Your task to perform on an android device: Open CNN.com Image 0: 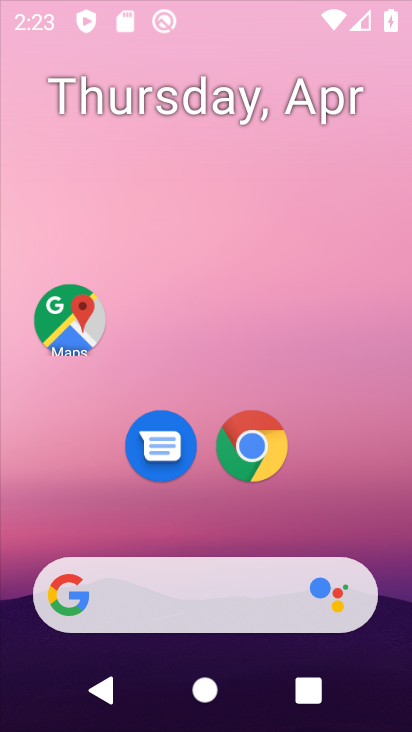
Step 0: click (294, 114)
Your task to perform on an android device: Open CNN.com Image 1: 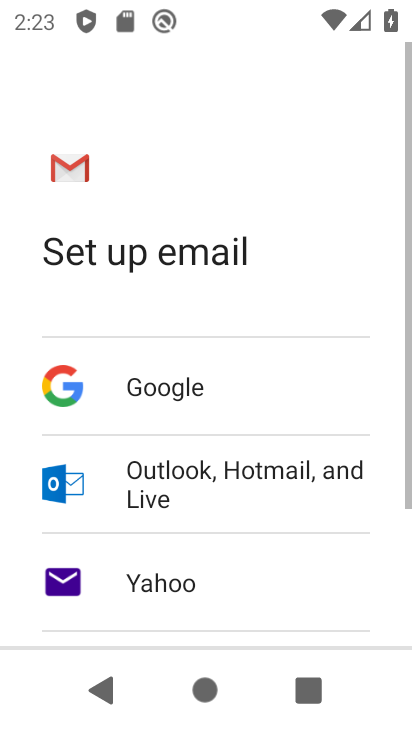
Step 1: press back button
Your task to perform on an android device: Open CNN.com Image 2: 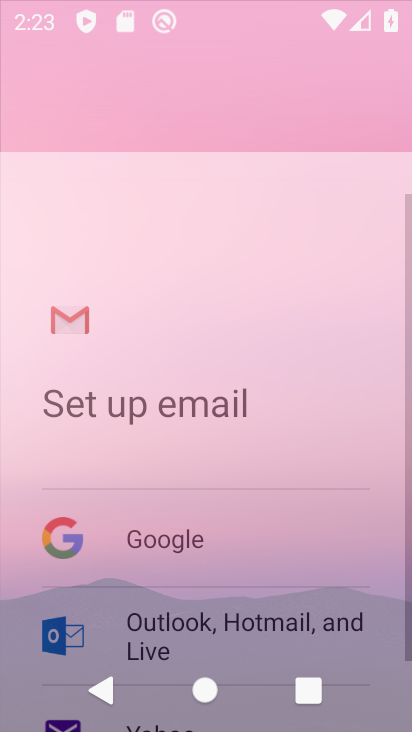
Step 2: press home button
Your task to perform on an android device: Open CNN.com Image 3: 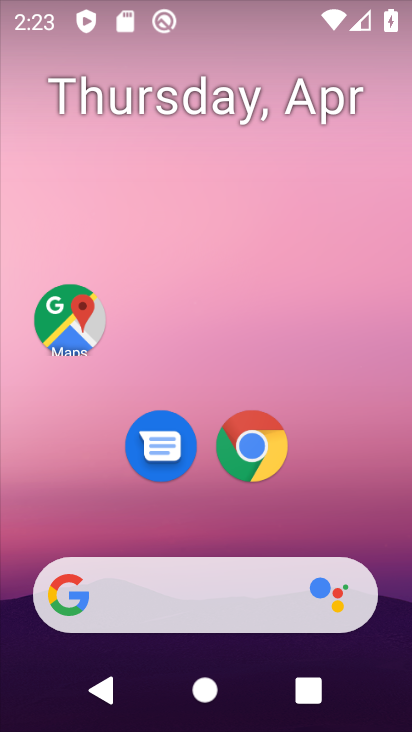
Step 3: drag from (271, 622) to (285, 103)
Your task to perform on an android device: Open CNN.com Image 4: 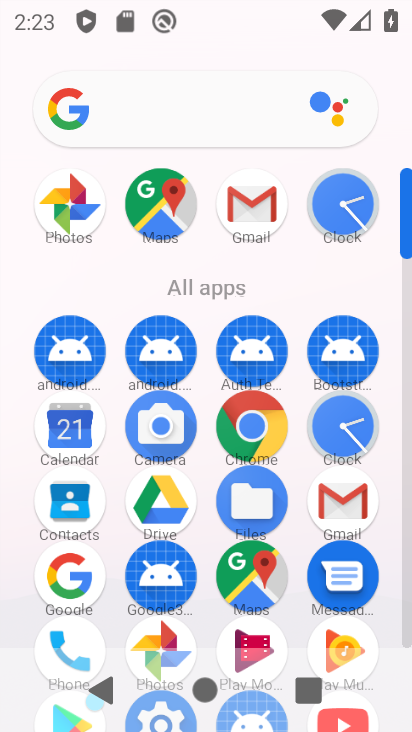
Step 4: click (261, 440)
Your task to perform on an android device: Open CNN.com Image 5: 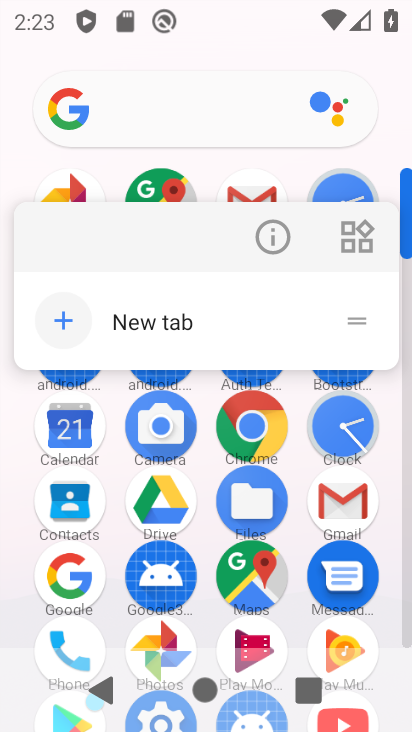
Step 5: click (261, 440)
Your task to perform on an android device: Open CNN.com Image 6: 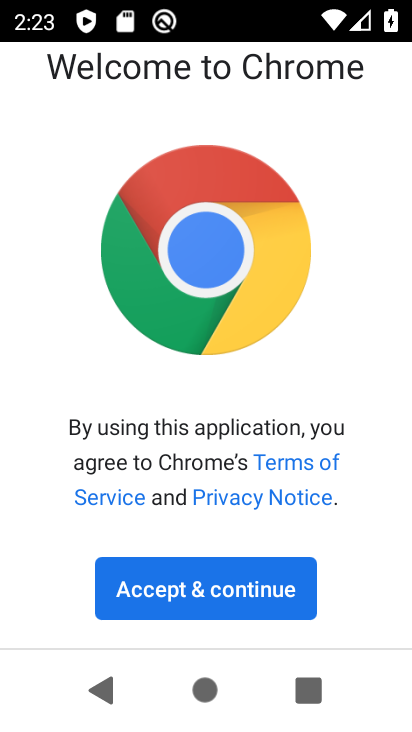
Step 6: click (206, 610)
Your task to perform on an android device: Open CNN.com Image 7: 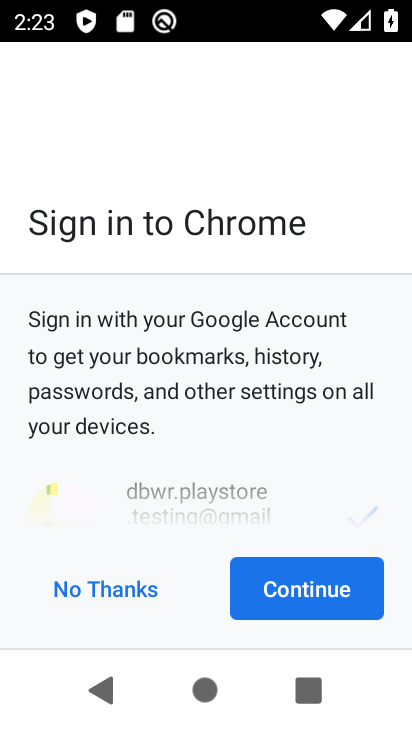
Step 7: click (294, 574)
Your task to perform on an android device: Open CNN.com Image 8: 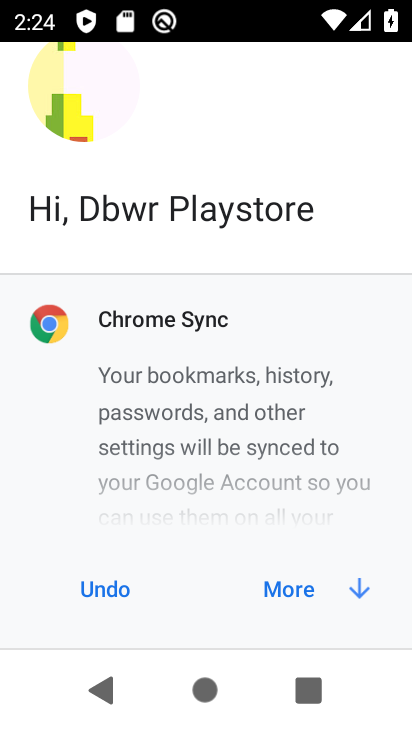
Step 8: click (348, 589)
Your task to perform on an android device: Open CNN.com Image 9: 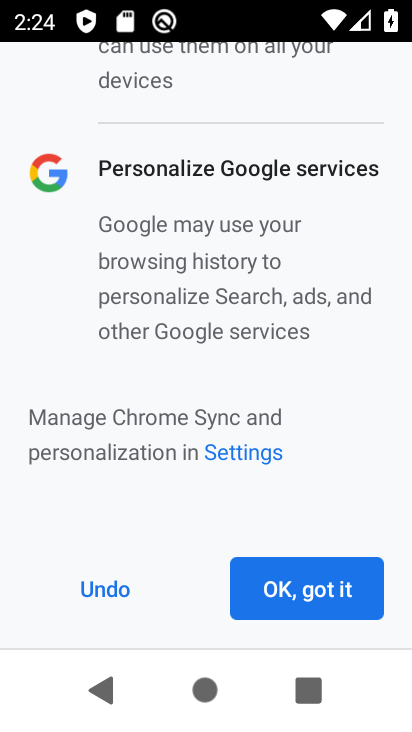
Step 9: click (314, 589)
Your task to perform on an android device: Open CNN.com Image 10: 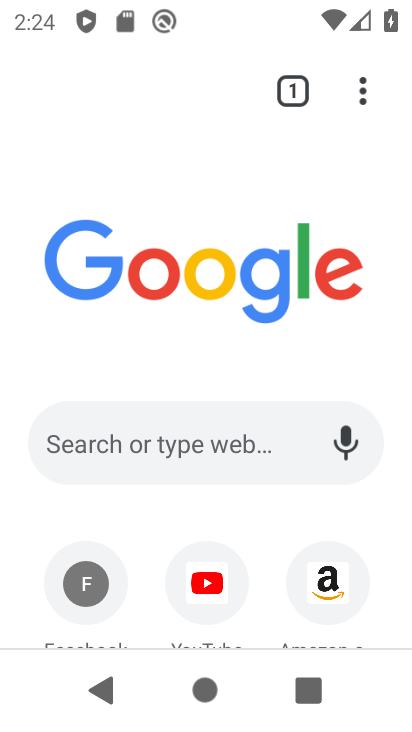
Step 10: click (218, 449)
Your task to perform on an android device: Open CNN.com Image 11: 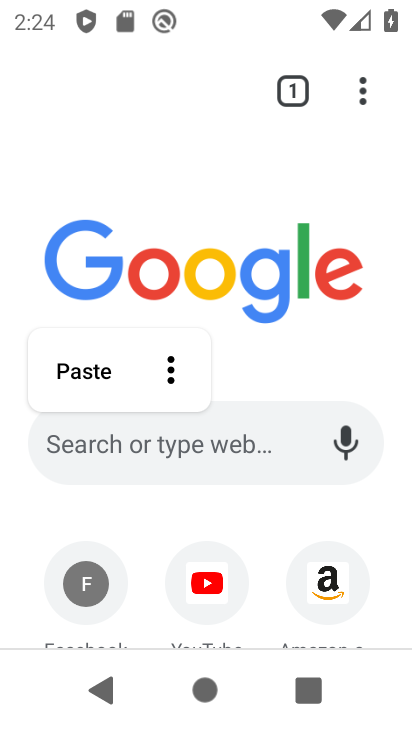
Step 11: click (136, 452)
Your task to perform on an android device: Open CNN.com Image 12: 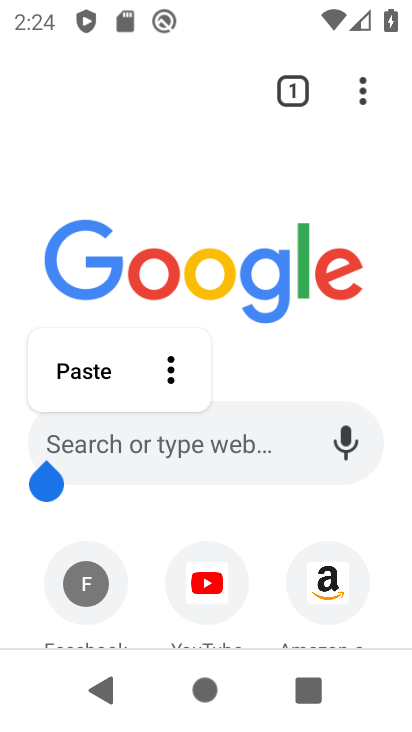
Step 12: click (128, 447)
Your task to perform on an android device: Open CNN.com Image 13: 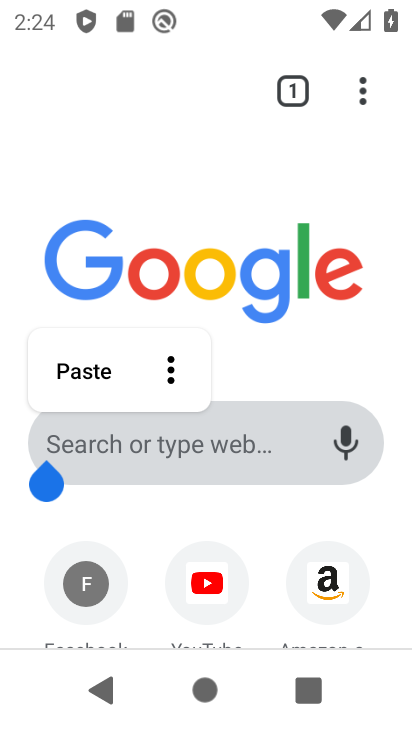
Step 13: click (125, 443)
Your task to perform on an android device: Open CNN.com Image 14: 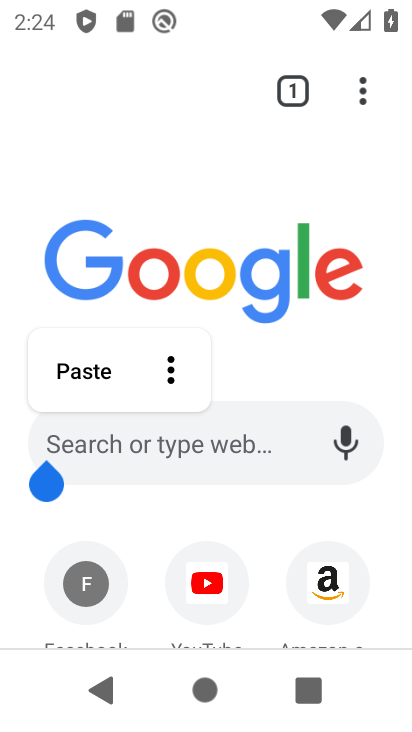
Step 14: click (123, 447)
Your task to perform on an android device: Open CNN.com Image 15: 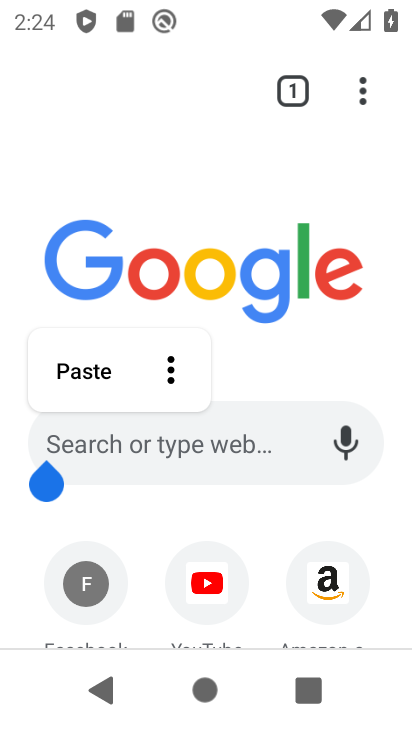
Step 15: click (123, 447)
Your task to perform on an android device: Open CNN.com Image 16: 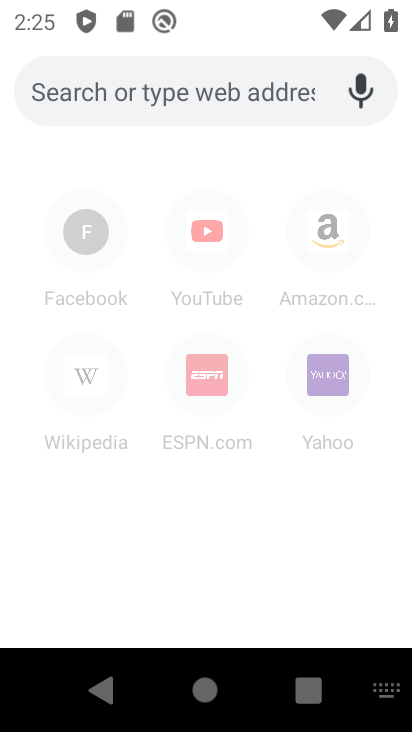
Step 16: click (381, 697)
Your task to perform on an android device: Open CNN.com Image 17: 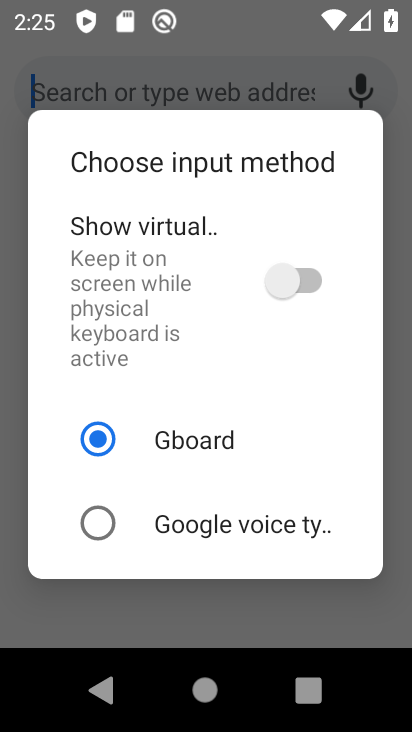
Step 17: click (294, 292)
Your task to perform on an android device: Open CNN.com Image 18: 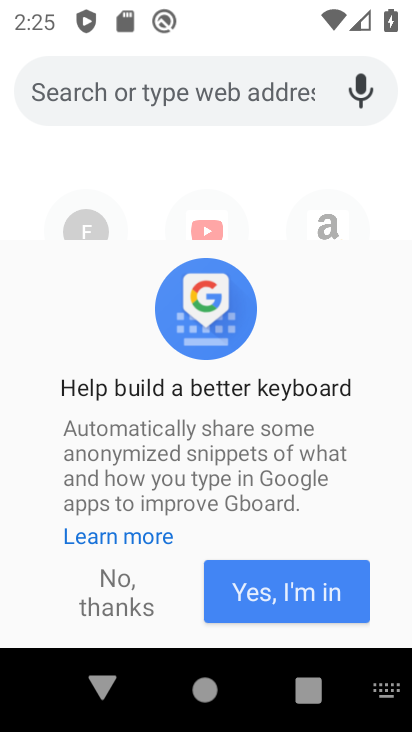
Step 18: click (111, 568)
Your task to perform on an android device: Open CNN.com Image 19: 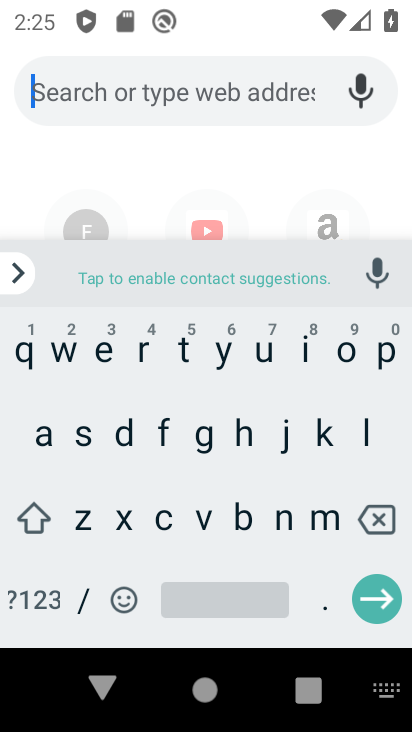
Step 19: click (166, 513)
Your task to perform on an android device: Open CNN.com Image 20: 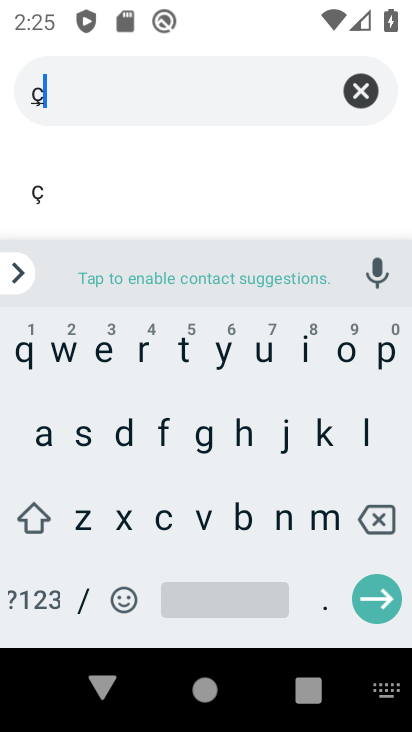
Step 20: click (378, 521)
Your task to perform on an android device: Open CNN.com Image 21: 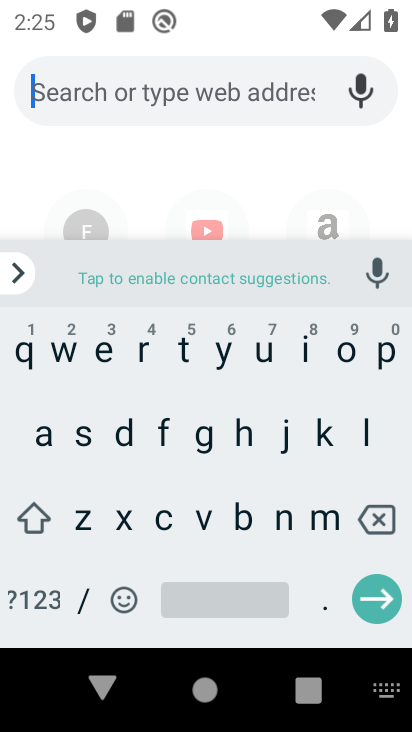
Step 21: click (161, 524)
Your task to perform on an android device: Open CNN.com Image 22: 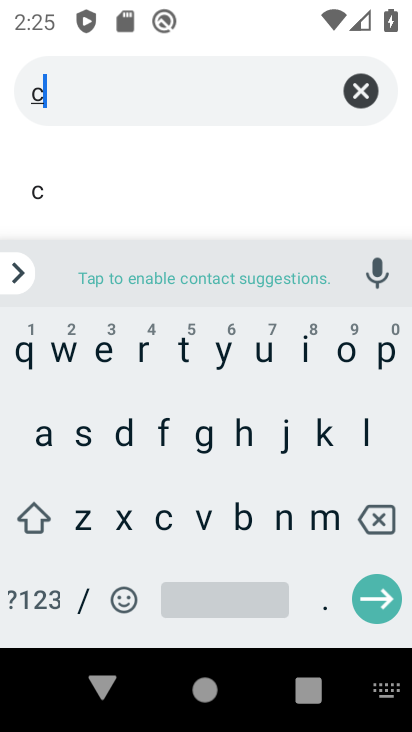
Step 22: click (282, 529)
Your task to perform on an android device: Open CNN.com Image 23: 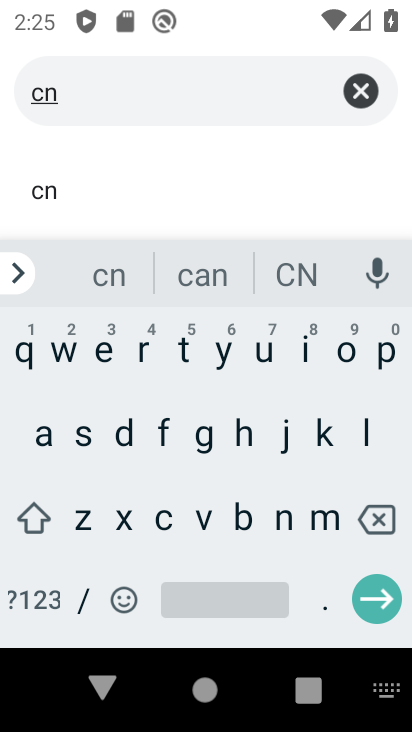
Step 23: drag from (280, 410) to (402, 582)
Your task to perform on an android device: Open CNN.com Image 24: 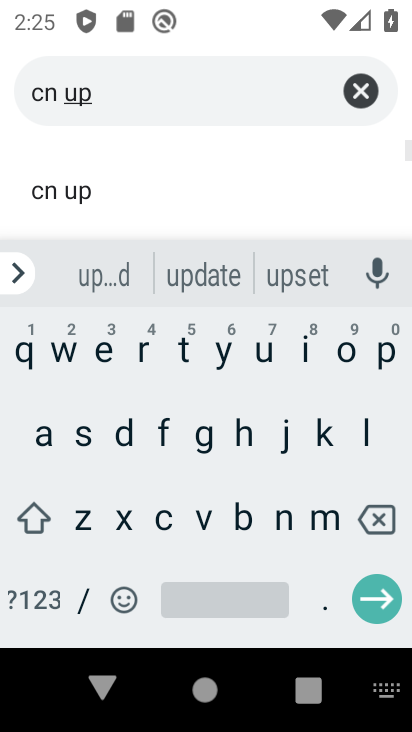
Step 24: click (375, 526)
Your task to perform on an android device: Open CNN.com Image 25: 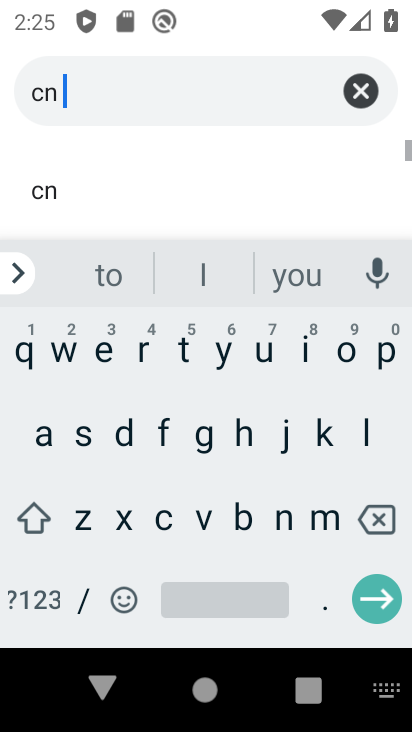
Step 25: click (375, 526)
Your task to perform on an android device: Open CNN.com Image 26: 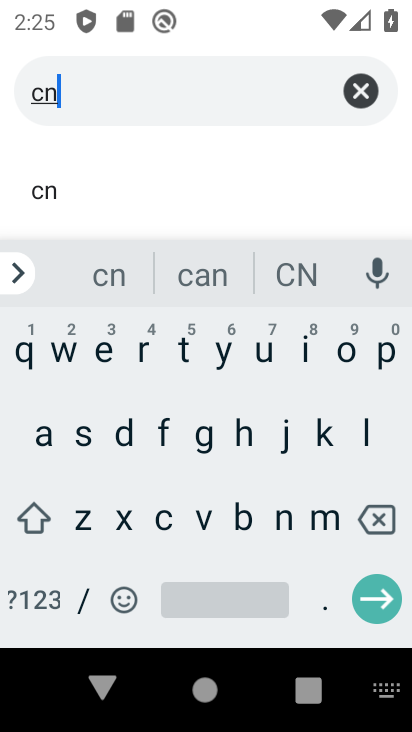
Step 26: click (289, 517)
Your task to perform on an android device: Open CNN.com Image 27: 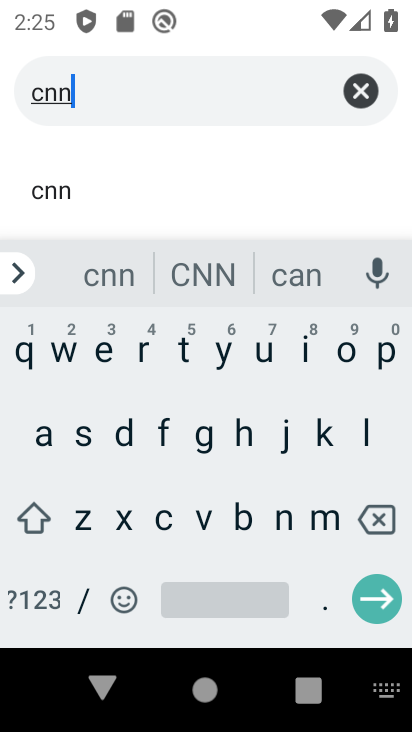
Step 27: click (369, 593)
Your task to perform on an android device: Open CNN.com Image 28: 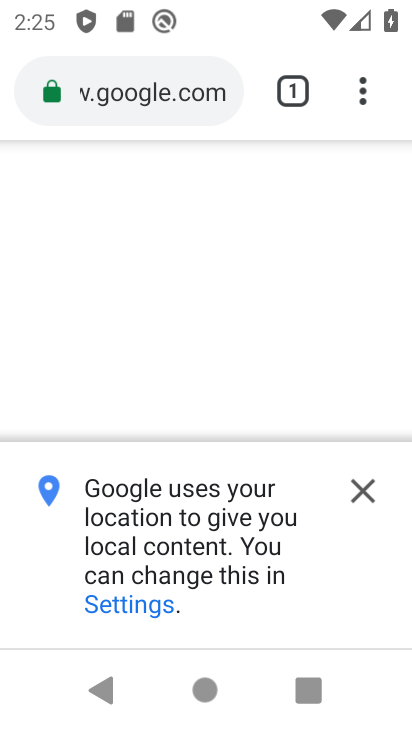
Step 28: click (363, 480)
Your task to perform on an android device: Open CNN.com Image 29: 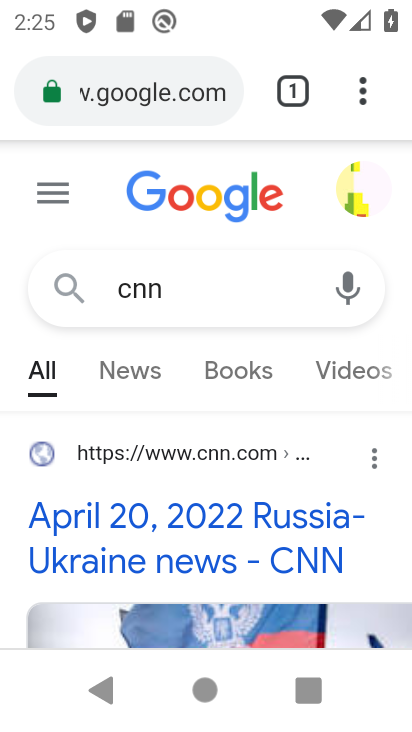
Step 29: click (109, 530)
Your task to perform on an android device: Open CNN.com Image 30: 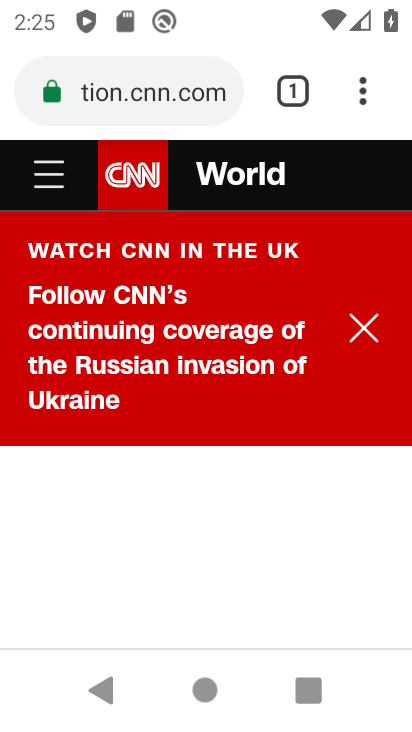
Step 30: task complete